Your task to perform on an android device: Search for a new water heater on Home Depot Image 0: 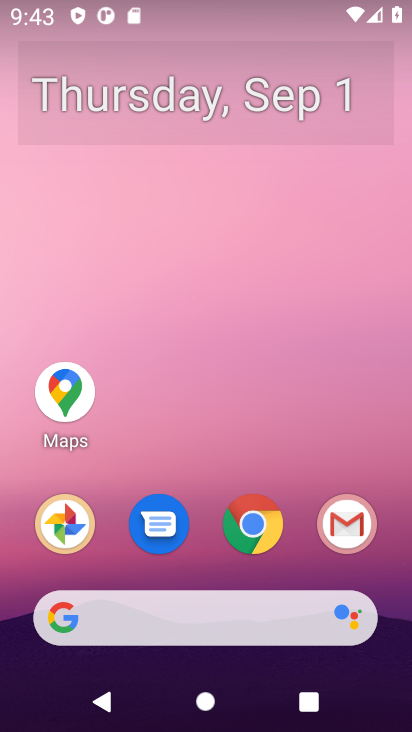
Step 0: drag from (400, 497) to (378, 110)
Your task to perform on an android device: Search for a new water heater on Home Depot Image 1: 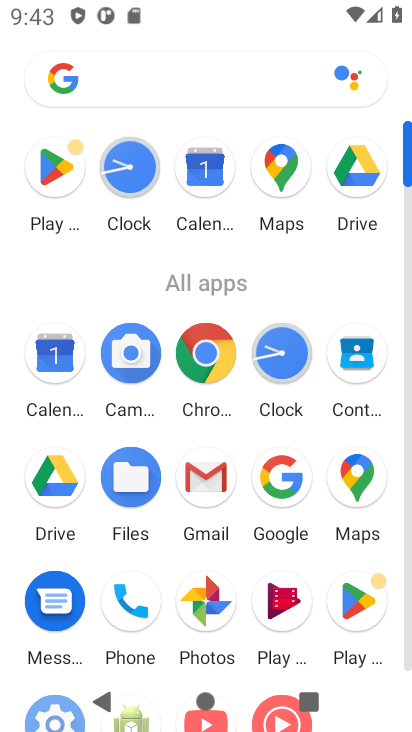
Step 1: click (203, 347)
Your task to perform on an android device: Search for a new water heater on Home Depot Image 2: 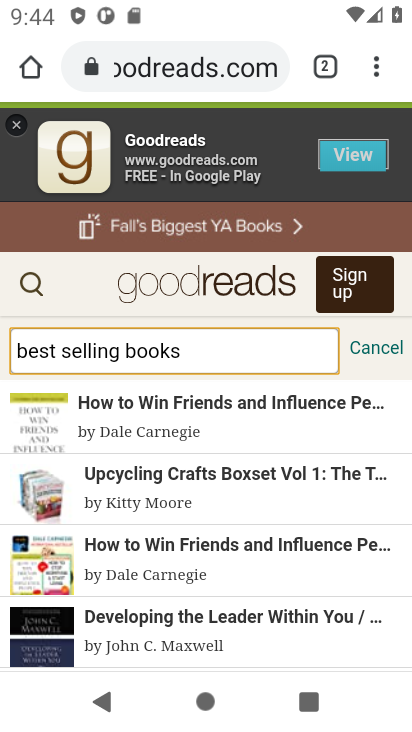
Step 2: click (202, 62)
Your task to perform on an android device: Search for a new water heater on Home Depot Image 3: 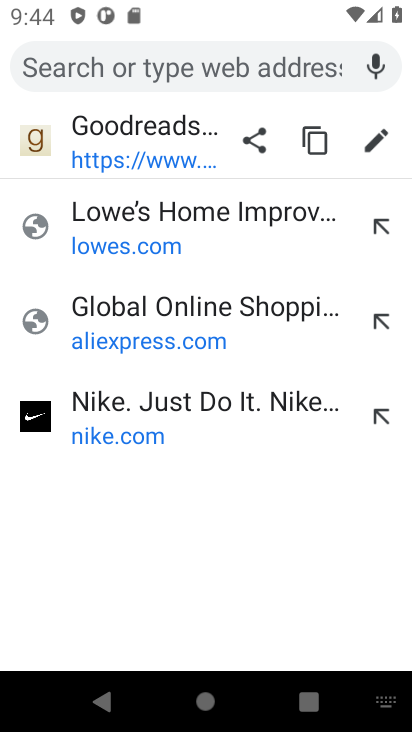
Step 3: type "home depot"
Your task to perform on an android device: Search for a new water heater on Home Depot Image 4: 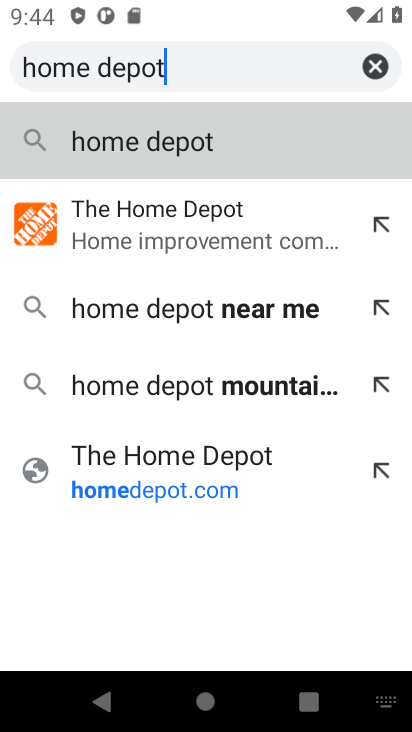
Step 4: press enter
Your task to perform on an android device: Search for a new water heater on Home Depot Image 5: 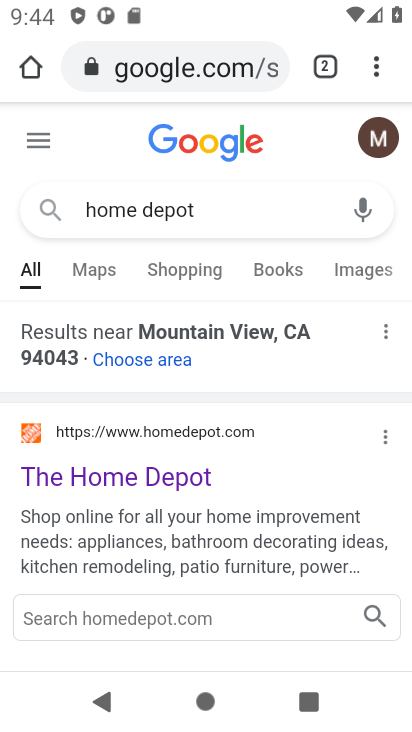
Step 5: click (173, 480)
Your task to perform on an android device: Search for a new water heater on Home Depot Image 6: 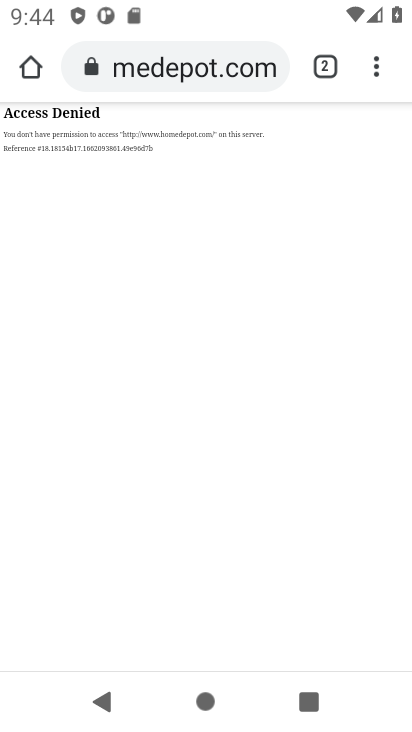
Step 6: task complete